Your task to perform on an android device: Open a new Chrome window Image 0: 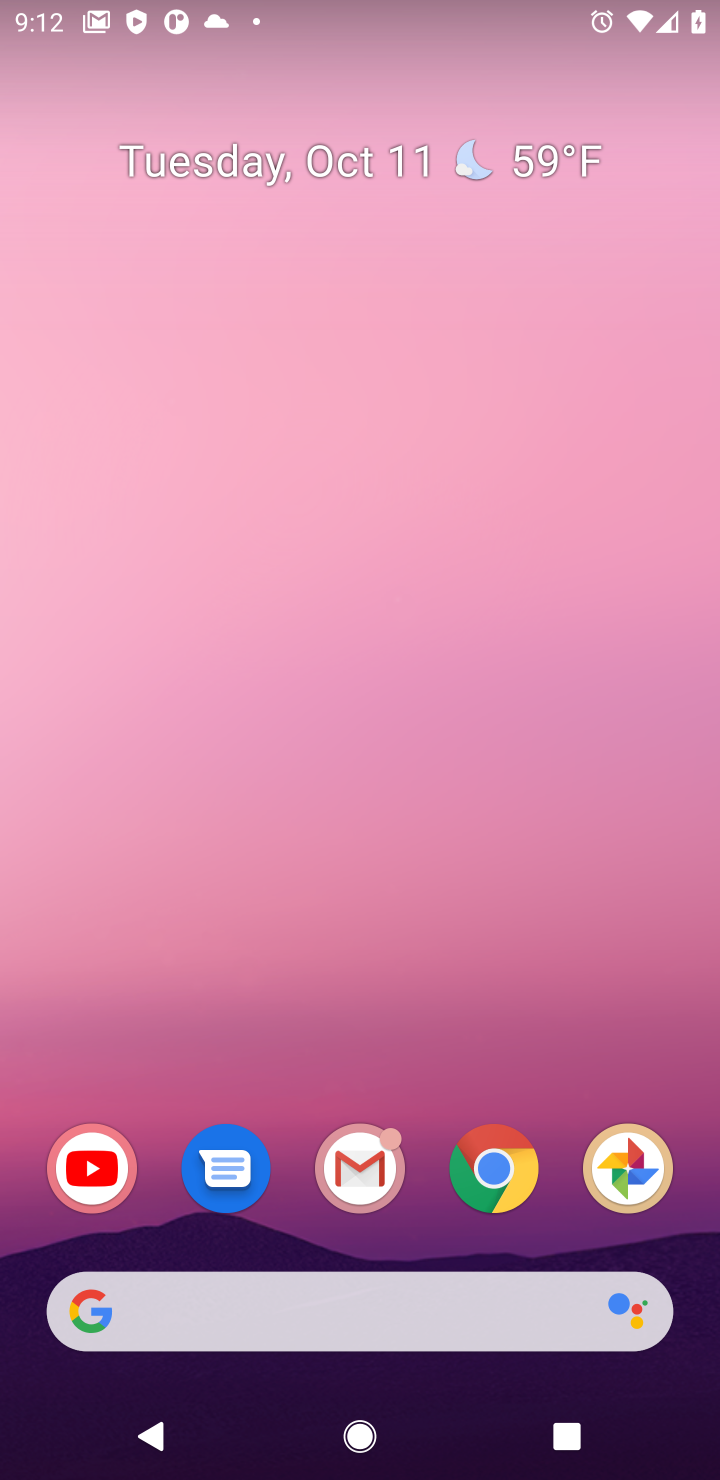
Step 0: click (510, 1168)
Your task to perform on an android device: Open a new Chrome window Image 1: 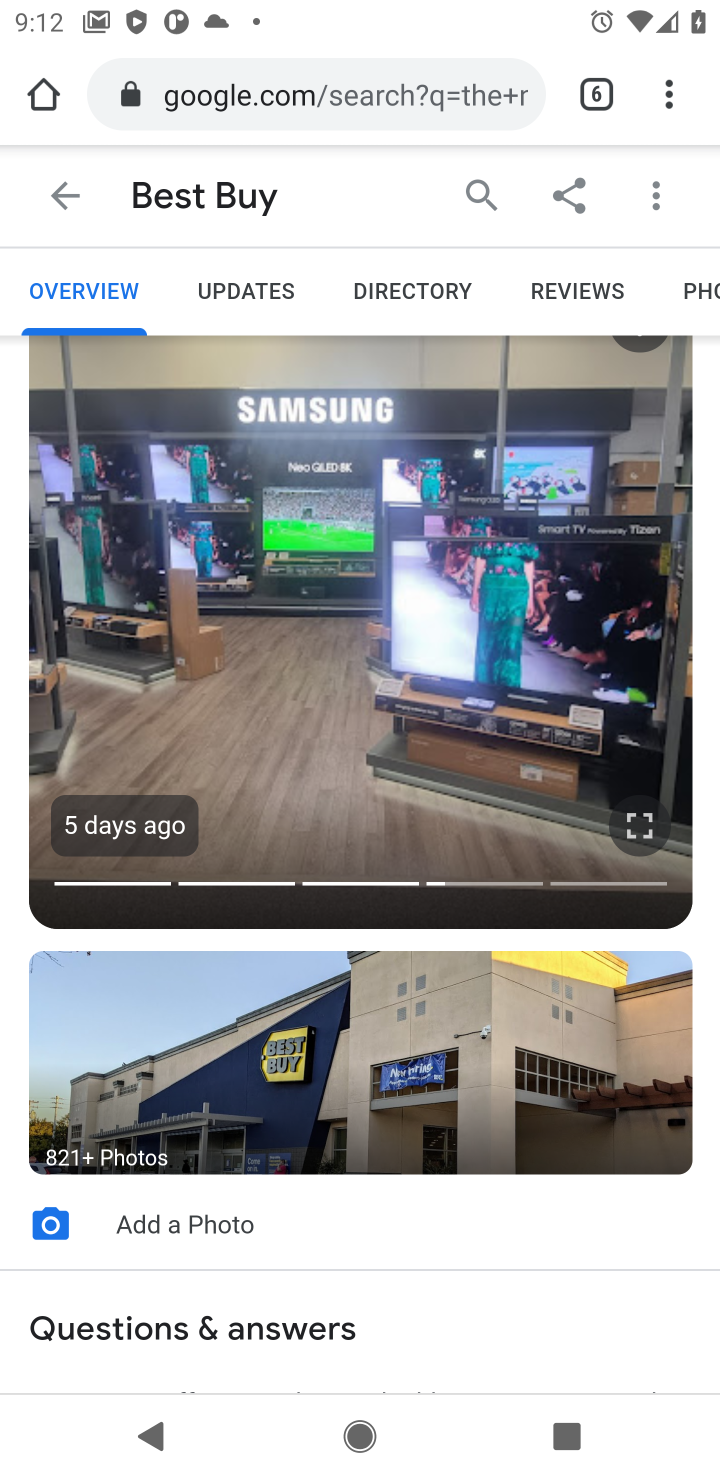
Step 1: click (354, 88)
Your task to perform on an android device: Open a new Chrome window Image 2: 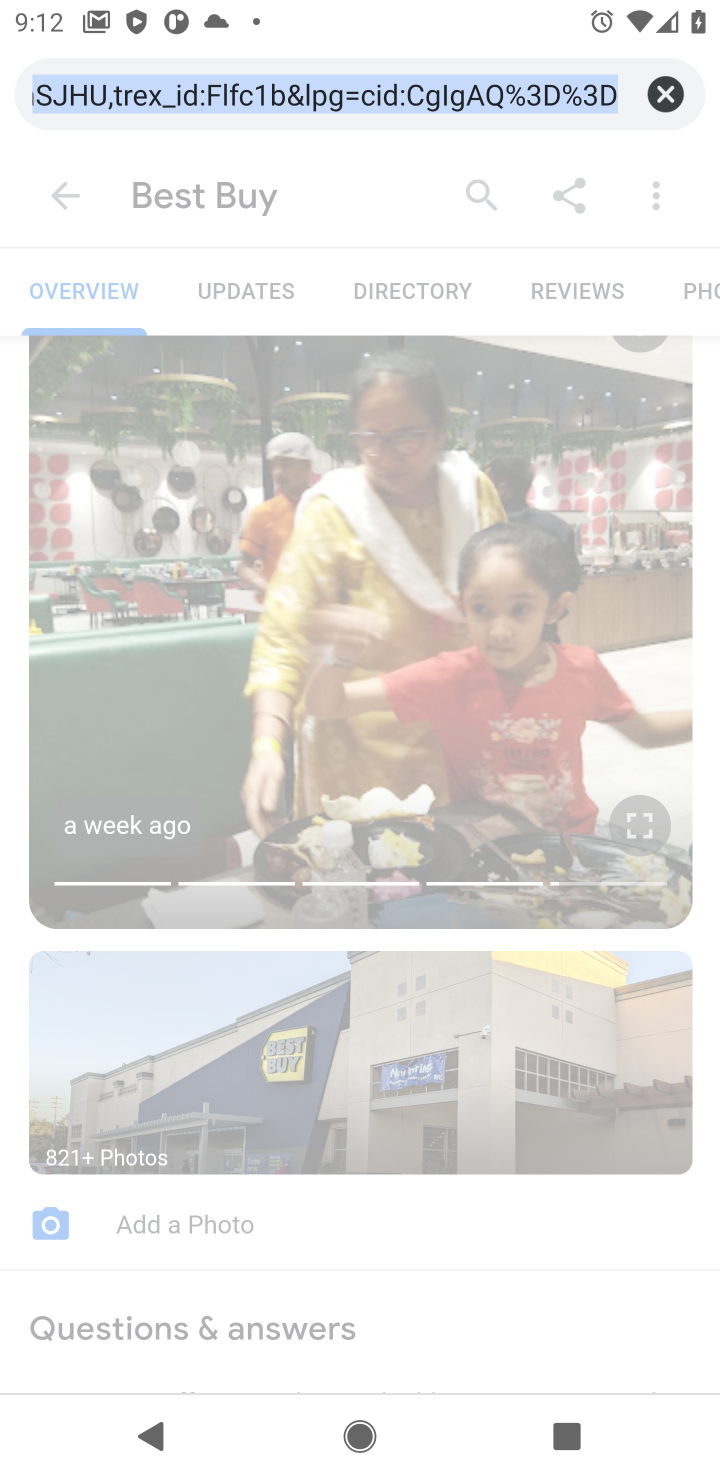
Step 2: drag from (585, 94) to (653, 94)
Your task to perform on an android device: Open a new Chrome window Image 3: 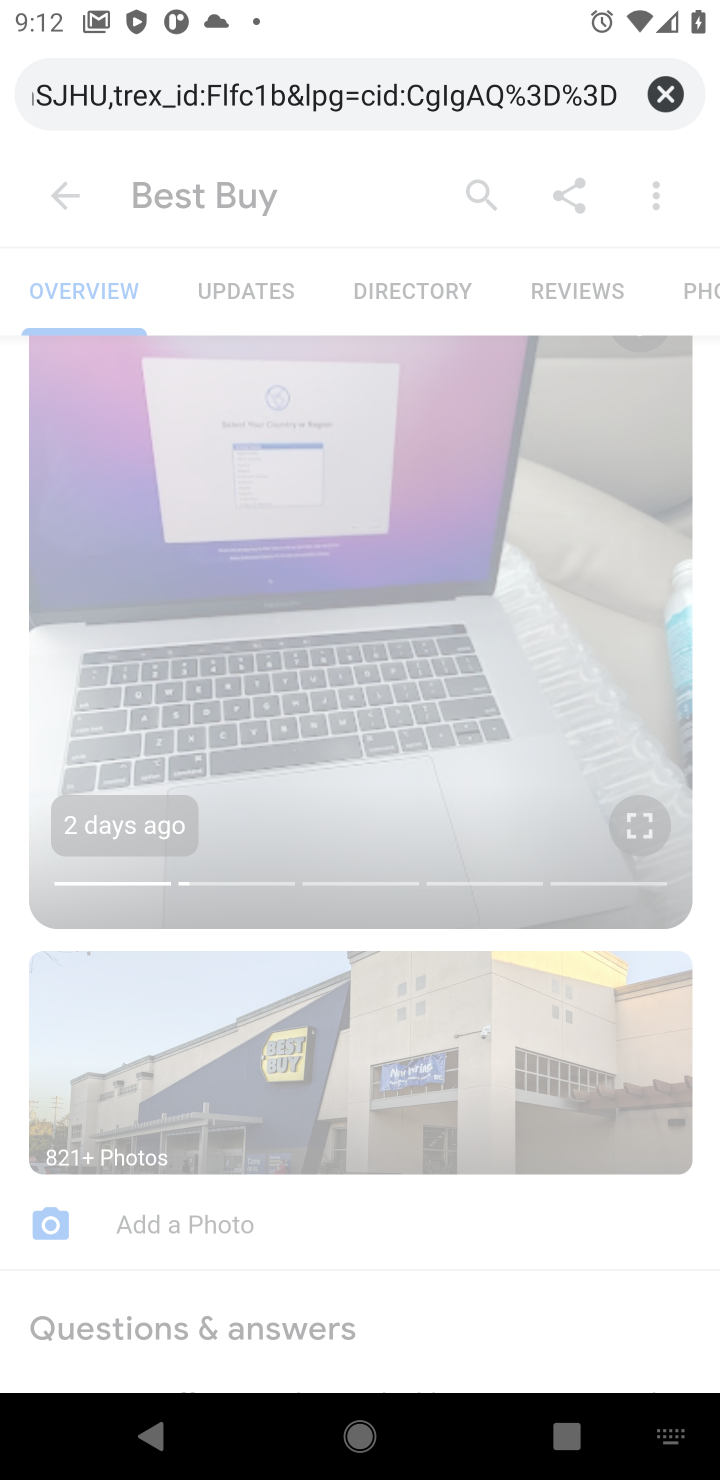
Step 3: click (659, 92)
Your task to perform on an android device: Open a new Chrome window Image 4: 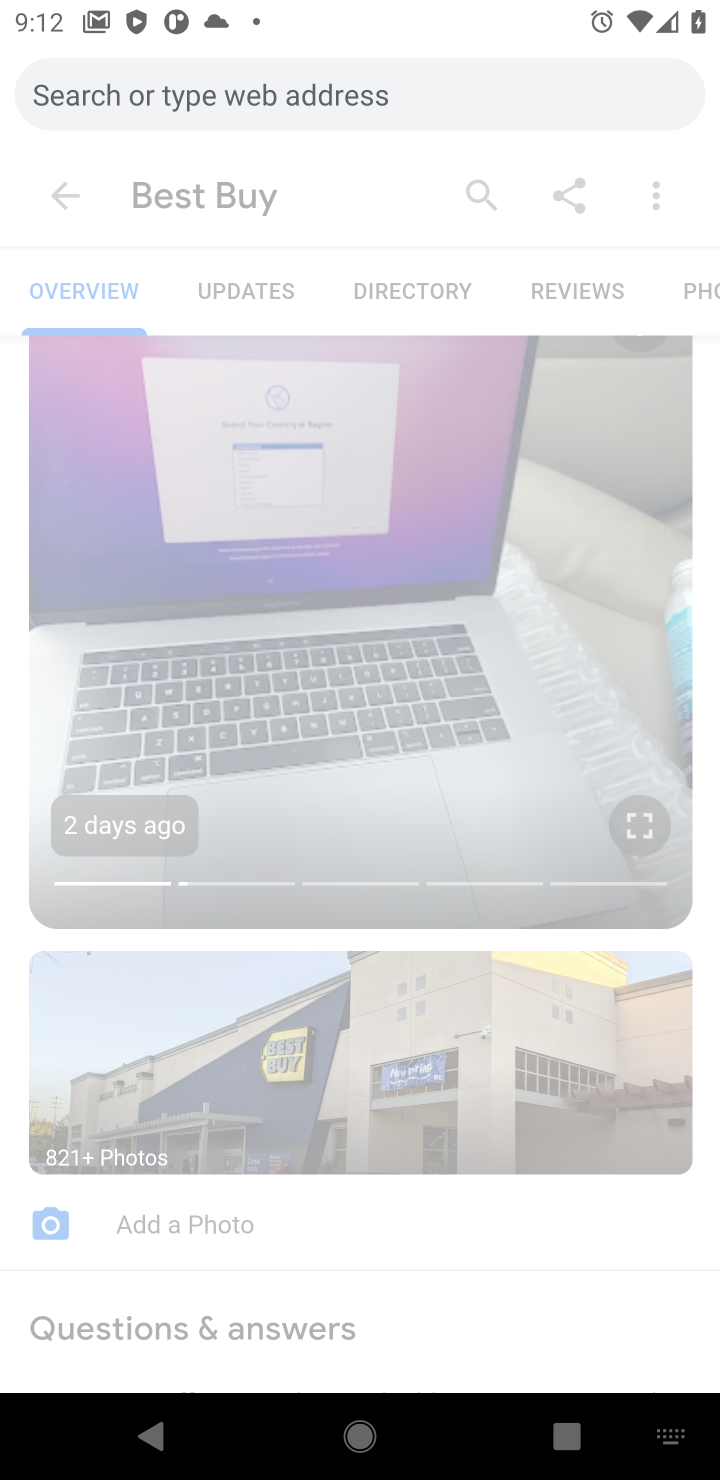
Step 4: press home button
Your task to perform on an android device: Open a new Chrome window Image 5: 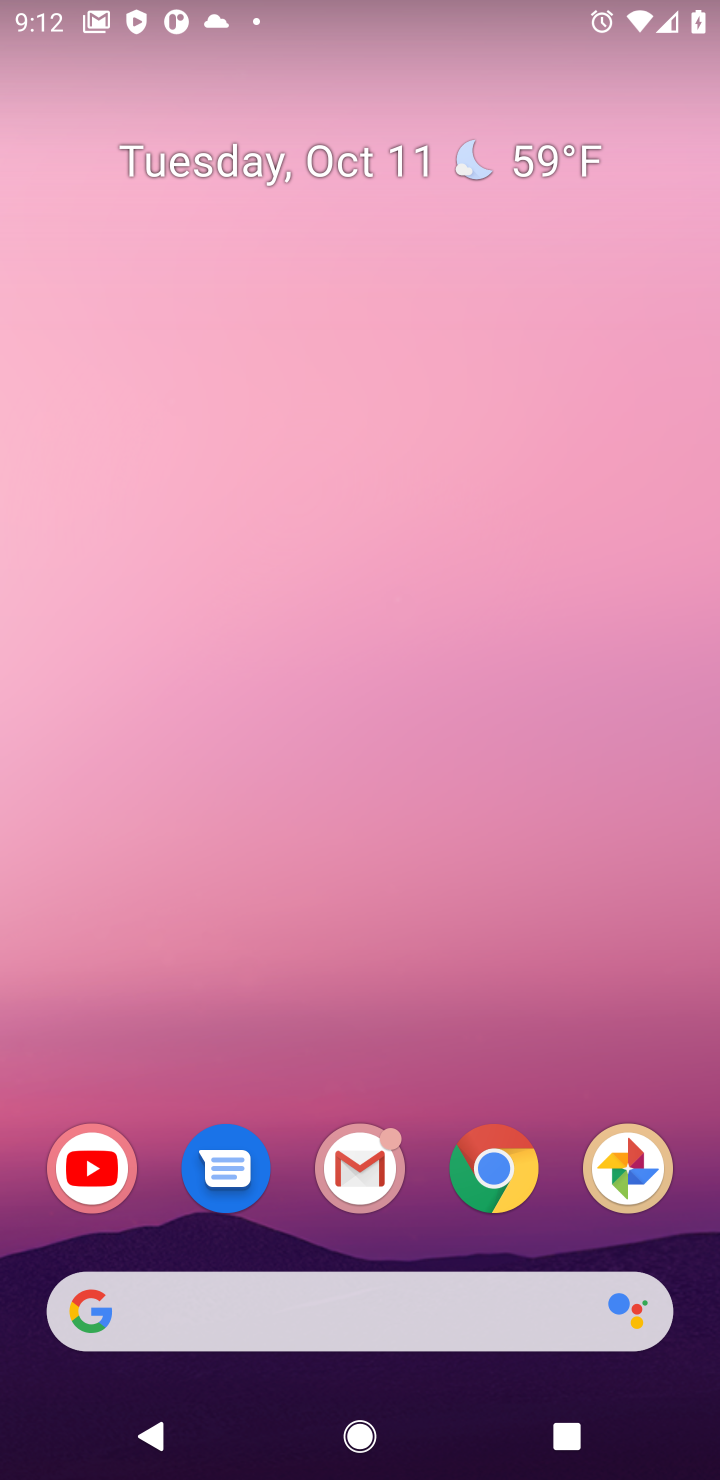
Step 5: click (472, 1186)
Your task to perform on an android device: Open a new Chrome window Image 6: 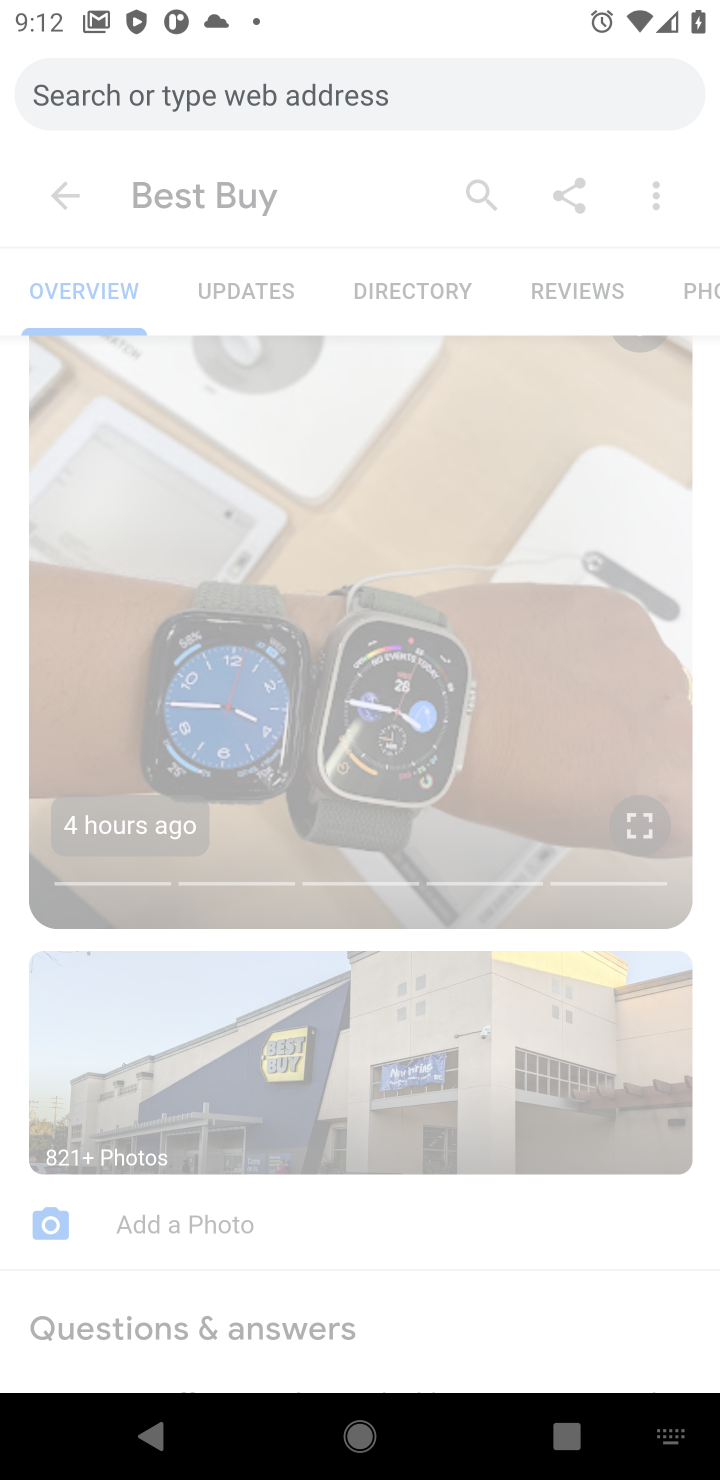
Step 6: press back button
Your task to perform on an android device: Open a new Chrome window Image 7: 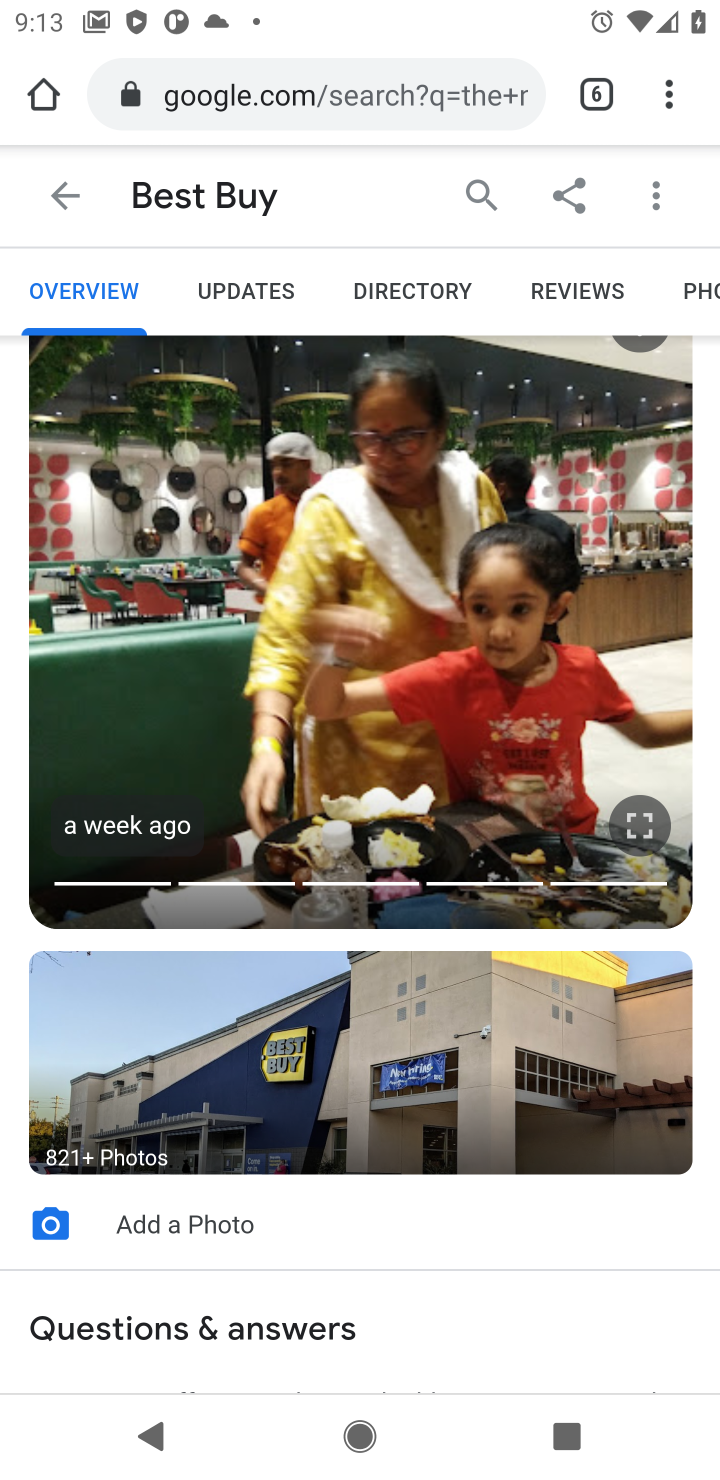
Step 7: drag from (371, 532) to (371, 333)
Your task to perform on an android device: Open a new Chrome window Image 8: 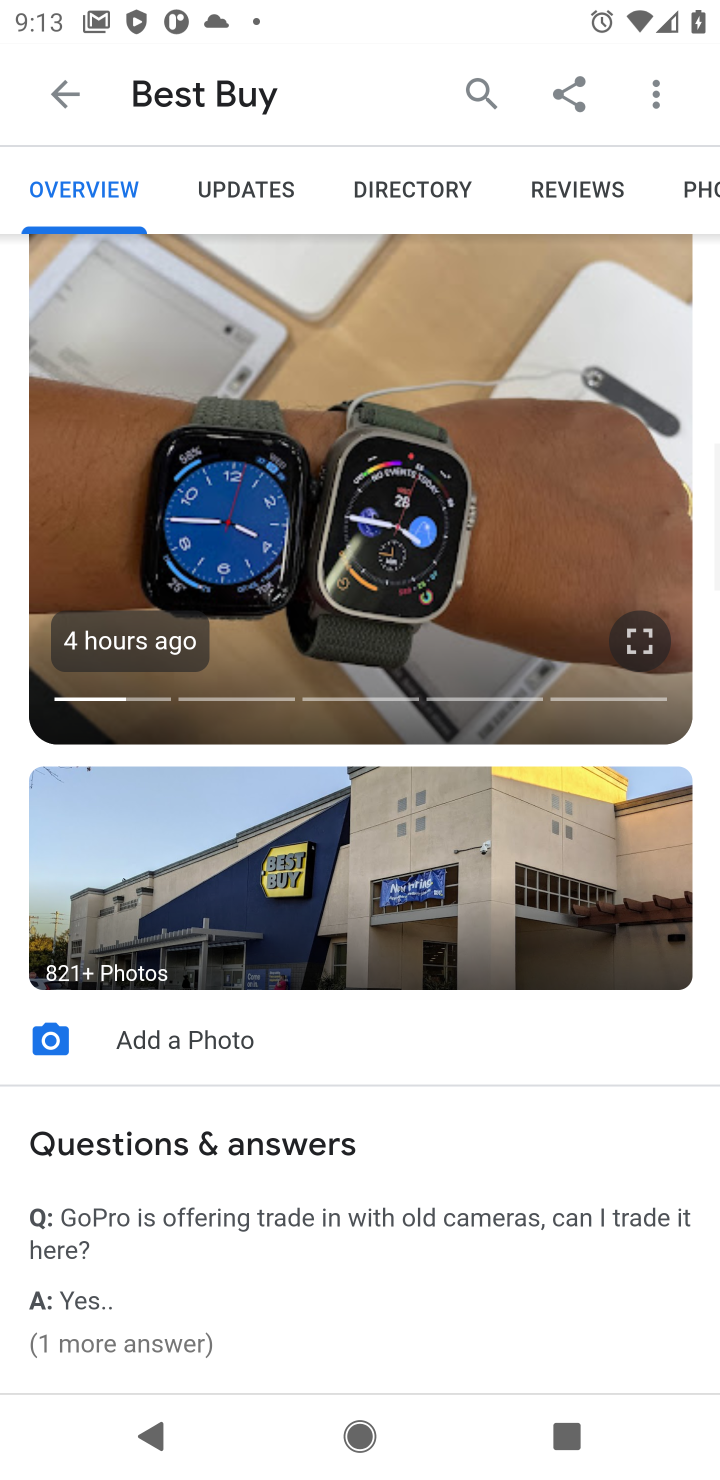
Step 8: click (425, 281)
Your task to perform on an android device: Open a new Chrome window Image 9: 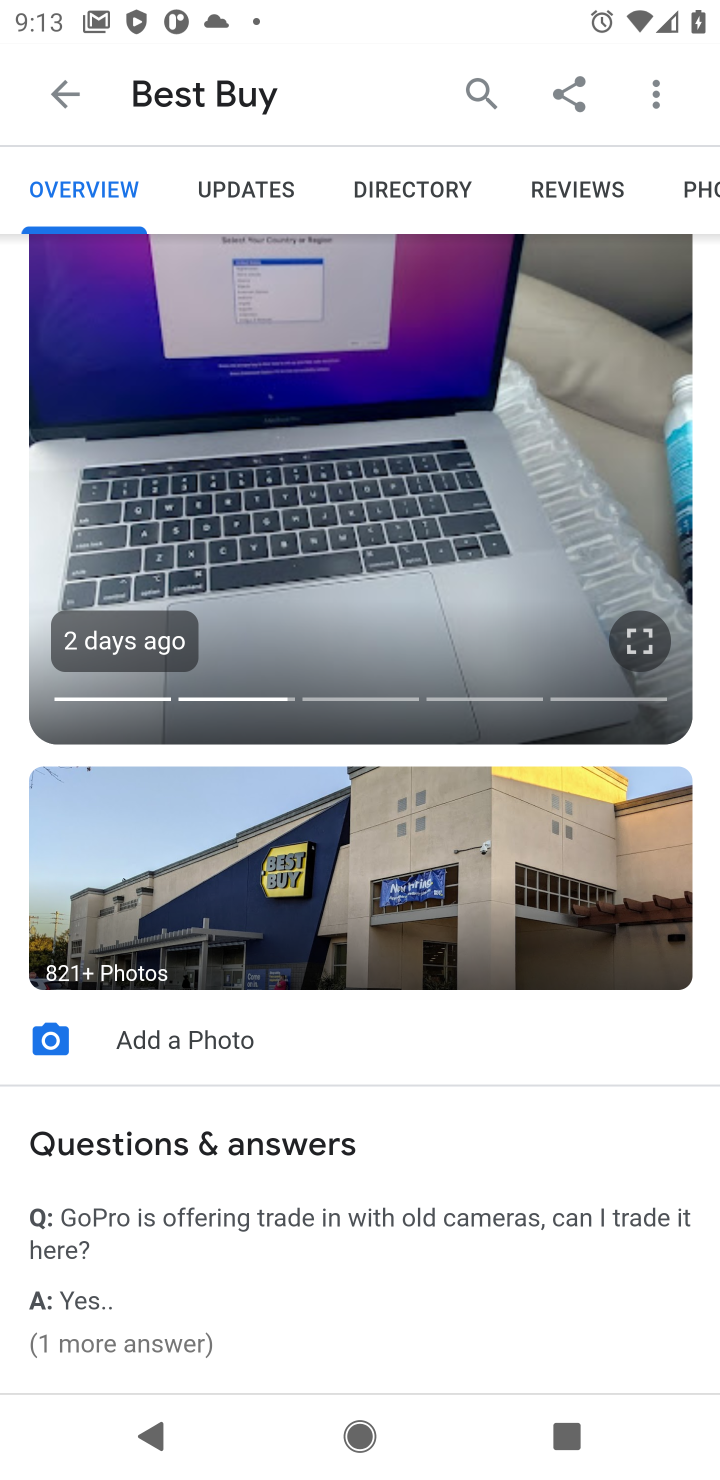
Step 9: task complete